Your task to perform on an android device: turn off notifications settings in the gmail app Image 0: 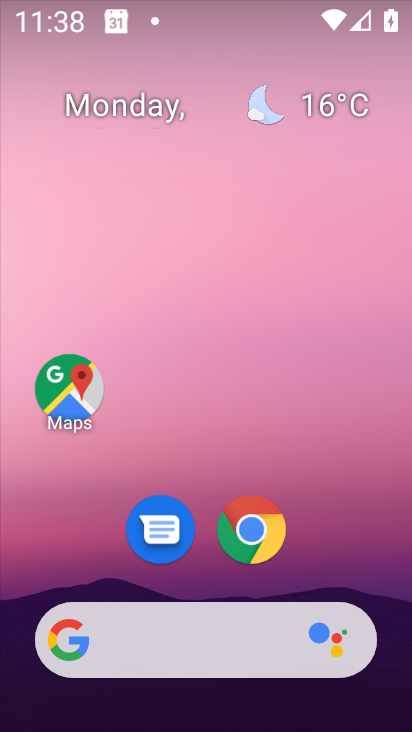
Step 0: drag from (202, 574) to (280, 108)
Your task to perform on an android device: turn off notifications settings in the gmail app Image 1: 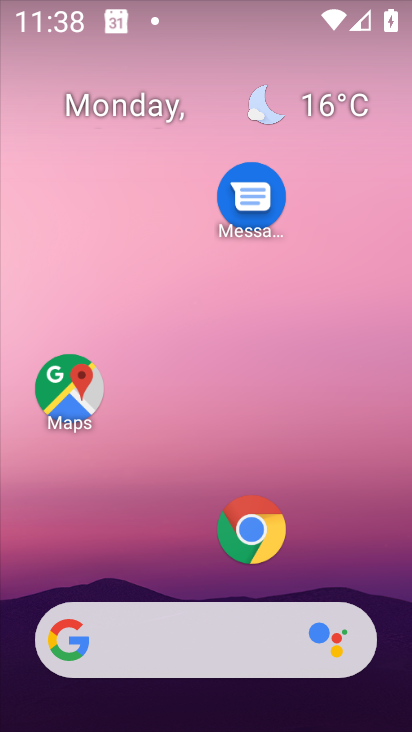
Step 1: drag from (209, 552) to (237, 56)
Your task to perform on an android device: turn off notifications settings in the gmail app Image 2: 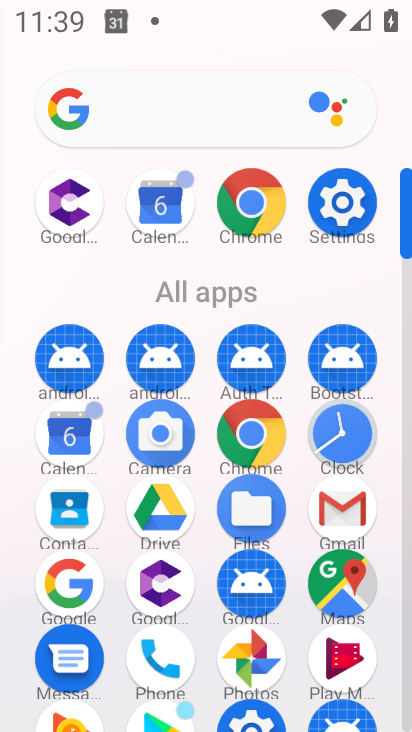
Step 2: click (341, 513)
Your task to perform on an android device: turn off notifications settings in the gmail app Image 3: 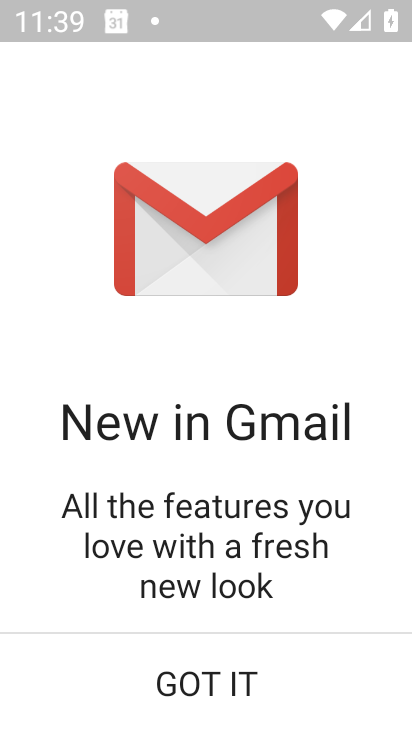
Step 3: click (211, 706)
Your task to perform on an android device: turn off notifications settings in the gmail app Image 4: 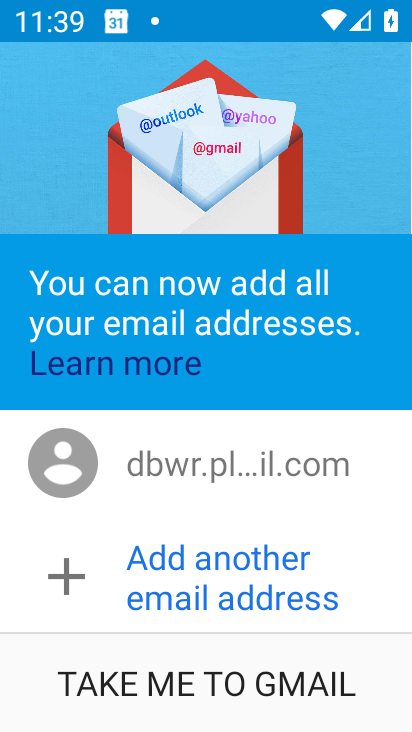
Step 4: click (183, 685)
Your task to perform on an android device: turn off notifications settings in the gmail app Image 5: 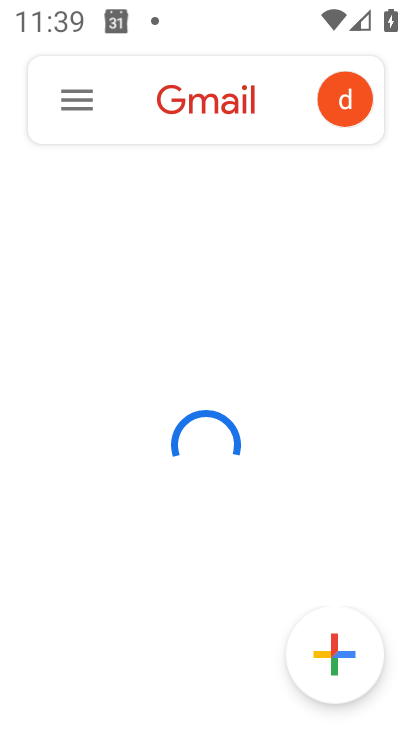
Step 5: click (72, 100)
Your task to perform on an android device: turn off notifications settings in the gmail app Image 6: 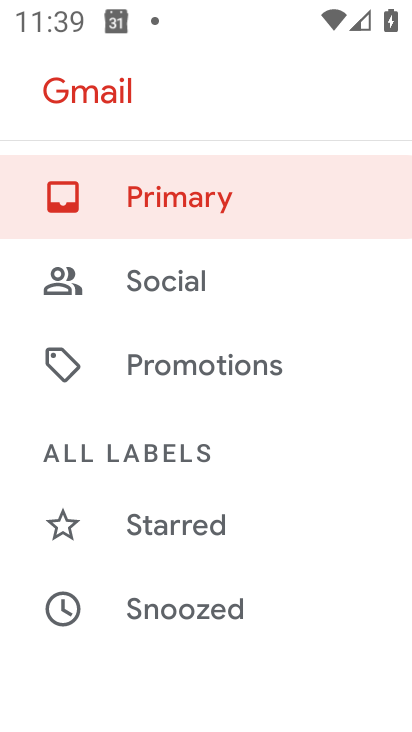
Step 6: drag from (239, 578) to (256, 118)
Your task to perform on an android device: turn off notifications settings in the gmail app Image 7: 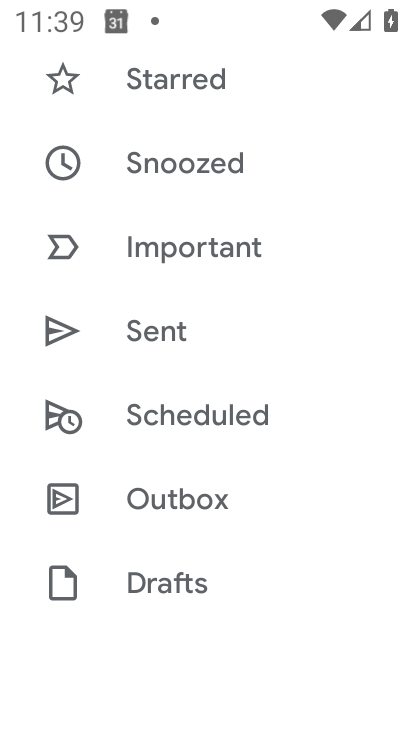
Step 7: drag from (179, 572) to (236, 138)
Your task to perform on an android device: turn off notifications settings in the gmail app Image 8: 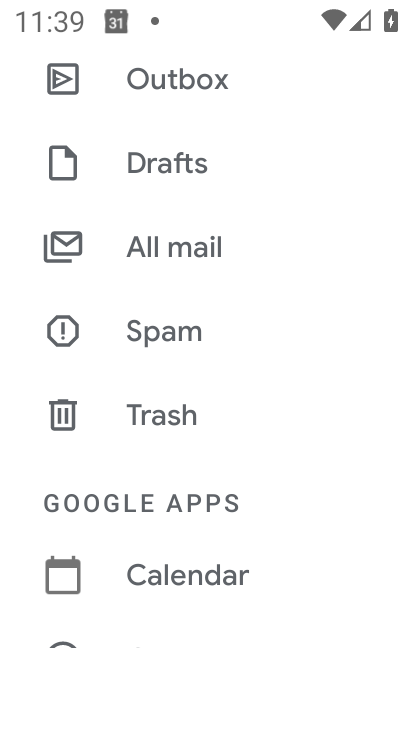
Step 8: drag from (176, 600) to (257, 141)
Your task to perform on an android device: turn off notifications settings in the gmail app Image 9: 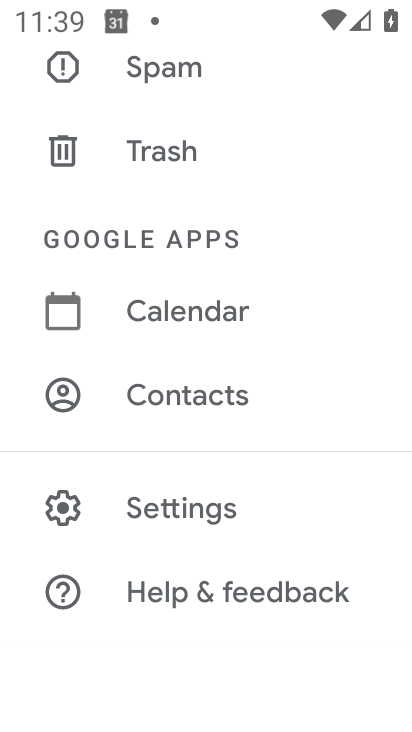
Step 9: click (161, 507)
Your task to perform on an android device: turn off notifications settings in the gmail app Image 10: 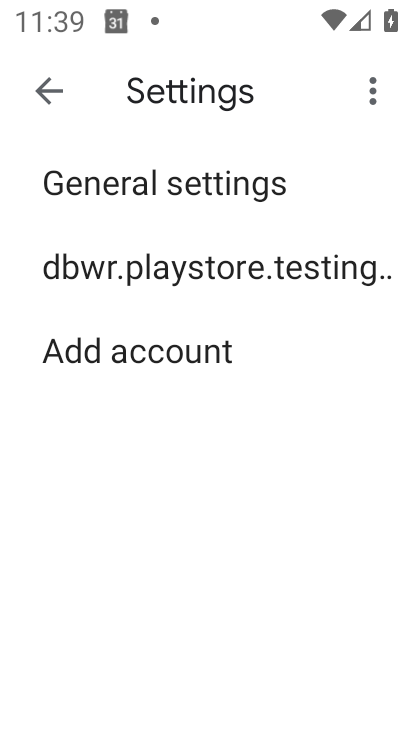
Step 10: click (136, 260)
Your task to perform on an android device: turn off notifications settings in the gmail app Image 11: 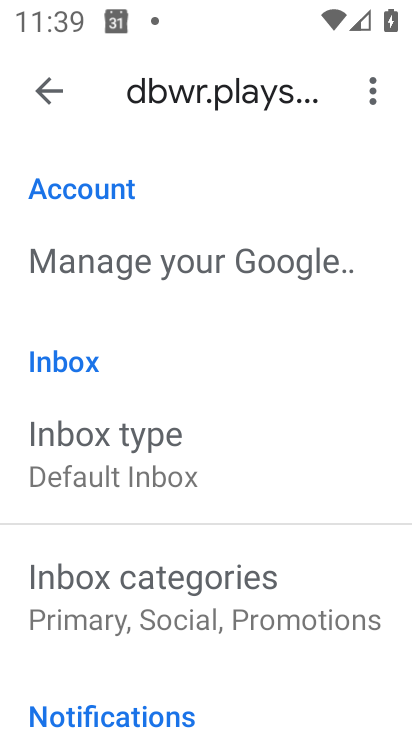
Step 11: drag from (200, 554) to (268, 170)
Your task to perform on an android device: turn off notifications settings in the gmail app Image 12: 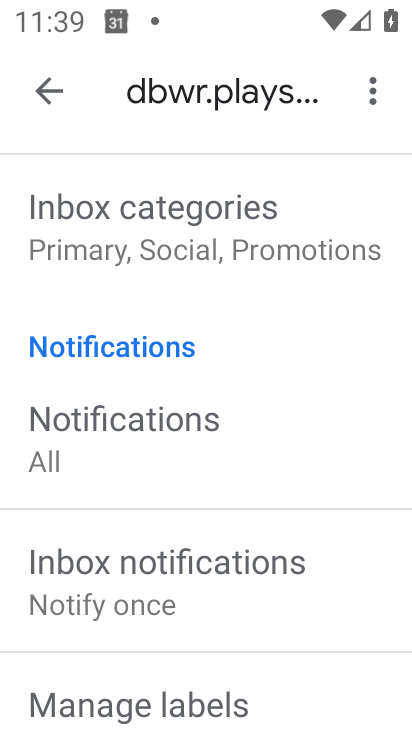
Step 12: drag from (177, 610) to (261, 240)
Your task to perform on an android device: turn off notifications settings in the gmail app Image 13: 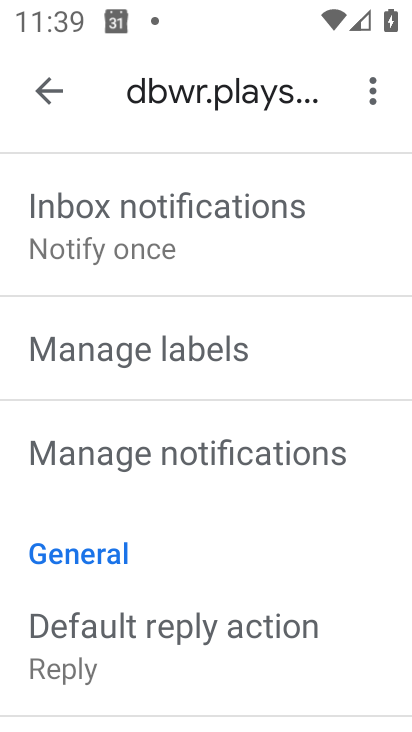
Step 13: click (196, 461)
Your task to perform on an android device: turn off notifications settings in the gmail app Image 14: 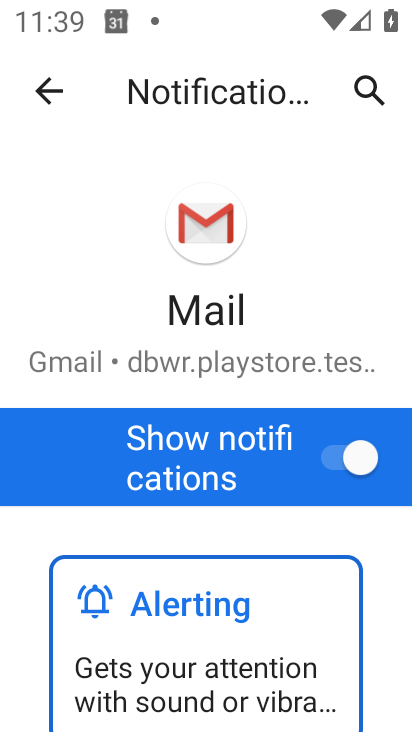
Step 14: click (351, 470)
Your task to perform on an android device: turn off notifications settings in the gmail app Image 15: 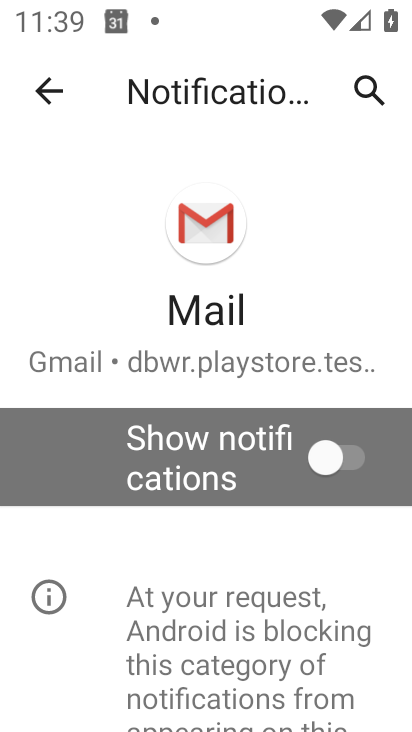
Step 15: task complete